Your task to perform on an android device: turn on notifications settings in the gmail app Image 0: 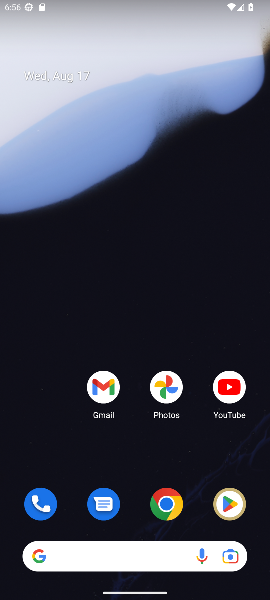
Step 0: drag from (141, 463) to (181, 114)
Your task to perform on an android device: turn on notifications settings in the gmail app Image 1: 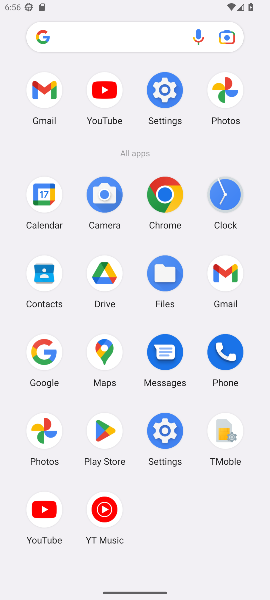
Step 1: click (229, 288)
Your task to perform on an android device: turn on notifications settings in the gmail app Image 2: 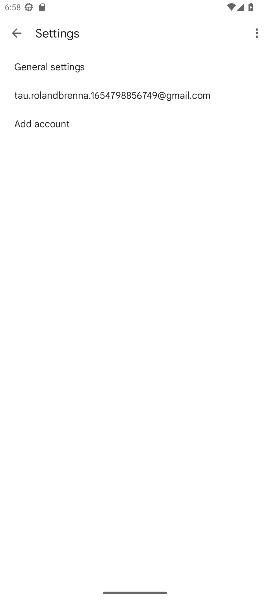
Step 2: click (184, 110)
Your task to perform on an android device: turn on notifications settings in the gmail app Image 3: 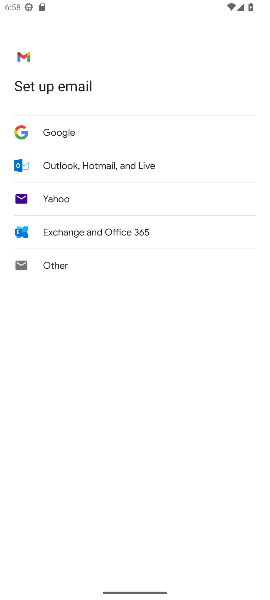
Step 3: press back button
Your task to perform on an android device: turn on notifications settings in the gmail app Image 4: 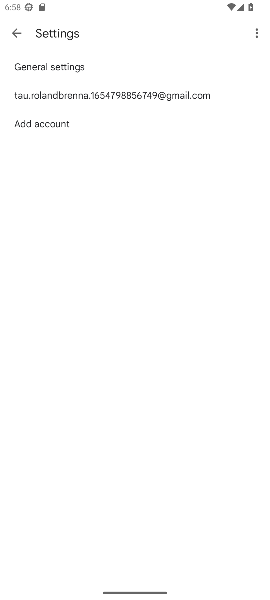
Step 4: click (113, 104)
Your task to perform on an android device: turn on notifications settings in the gmail app Image 5: 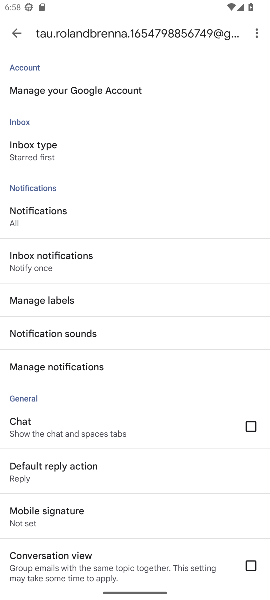
Step 5: click (101, 376)
Your task to perform on an android device: turn on notifications settings in the gmail app Image 6: 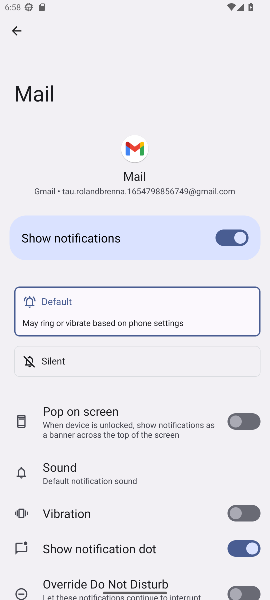
Step 6: click (234, 513)
Your task to perform on an android device: turn on notifications settings in the gmail app Image 7: 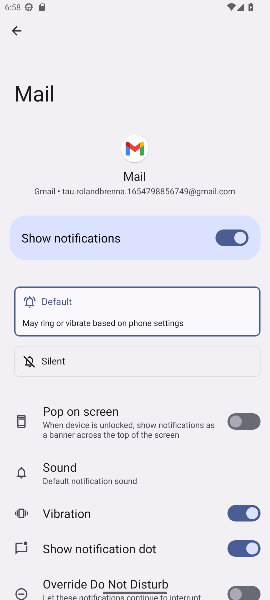
Step 7: task complete